Your task to perform on an android device: Open Wikipedia Image 0: 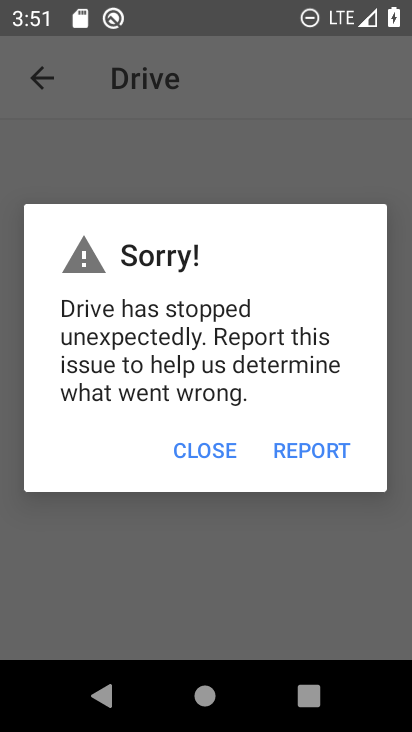
Step 0: click (197, 439)
Your task to perform on an android device: Open Wikipedia Image 1: 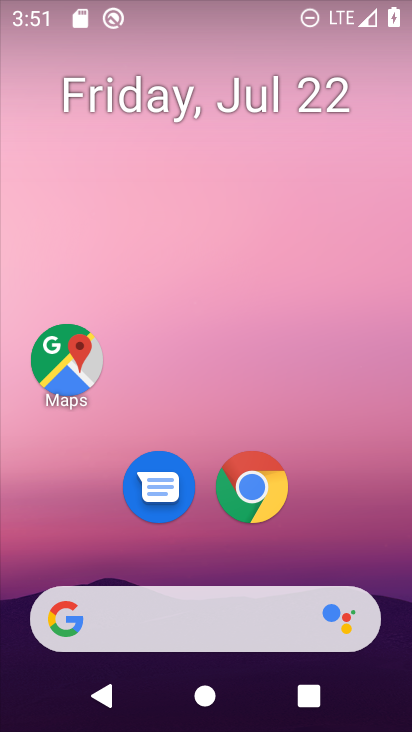
Step 1: click (246, 484)
Your task to perform on an android device: Open Wikipedia Image 2: 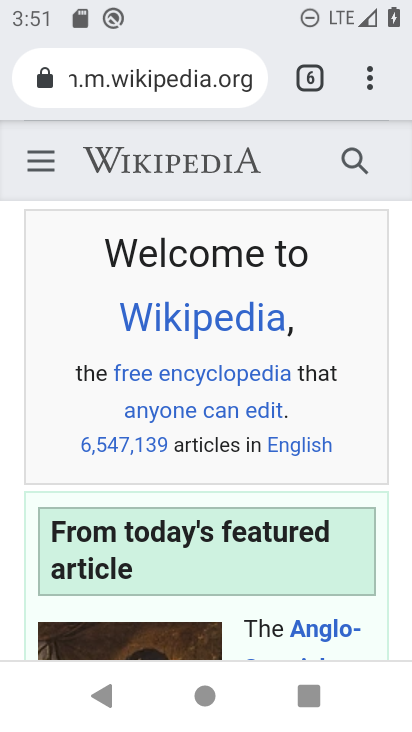
Step 2: task complete